Your task to perform on an android device: Clear the shopping cart on walmart.com. Search for "rayovac triple a" on walmart.com, select the first entry, add it to the cart, then select checkout. Image 0: 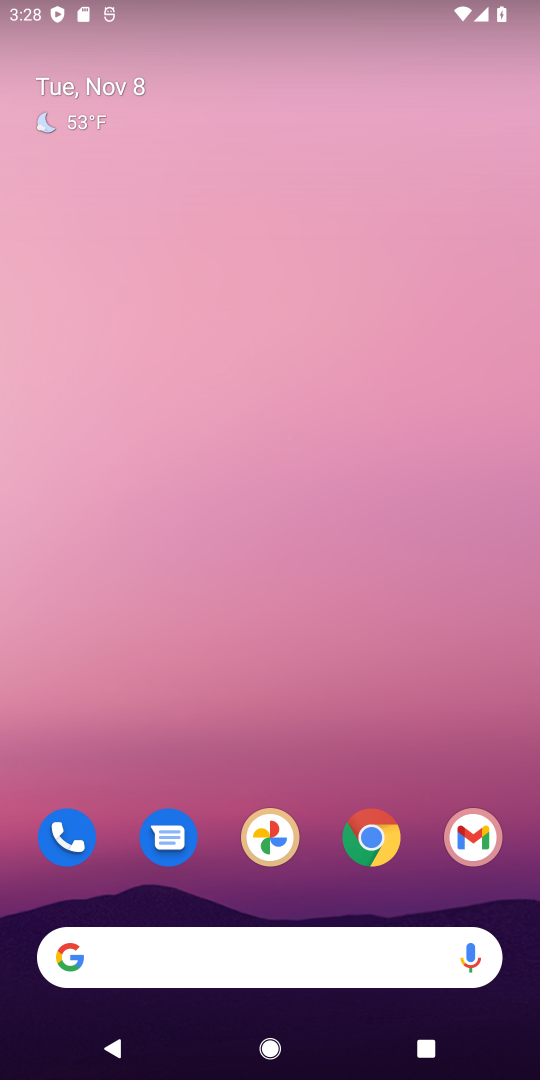
Step 0: click (387, 843)
Your task to perform on an android device: Clear the shopping cart on walmart.com. Search for "rayovac triple a" on walmart.com, select the first entry, add it to the cart, then select checkout. Image 1: 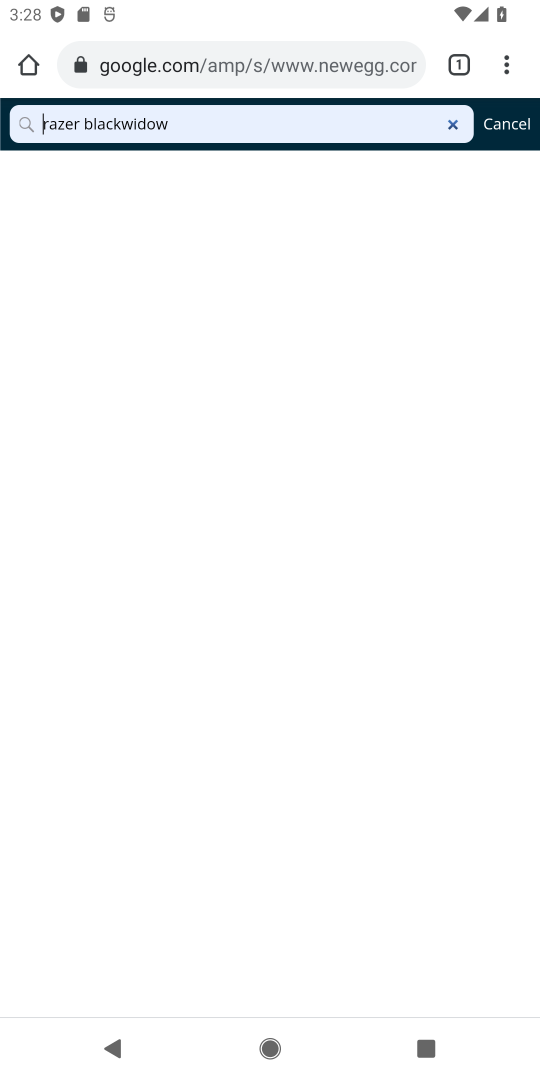
Step 1: click (194, 67)
Your task to perform on an android device: Clear the shopping cart on walmart.com. Search for "rayovac triple a" on walmart.com, select the first entry, add it to the cart, then select checkout. Image 2: 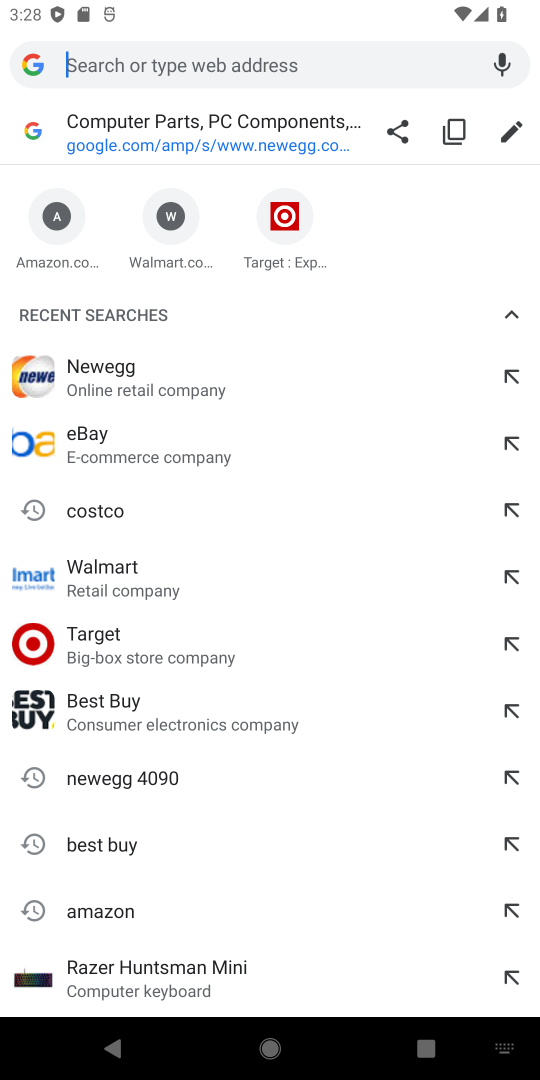
Step 2: type "walmart"
Your task to perform on an android device: Clear the shopping cart on walmart.com. Search for "rayovac triple a" on walmart.com, select the first entry, add it to the cart, then select checkout. Image 3: 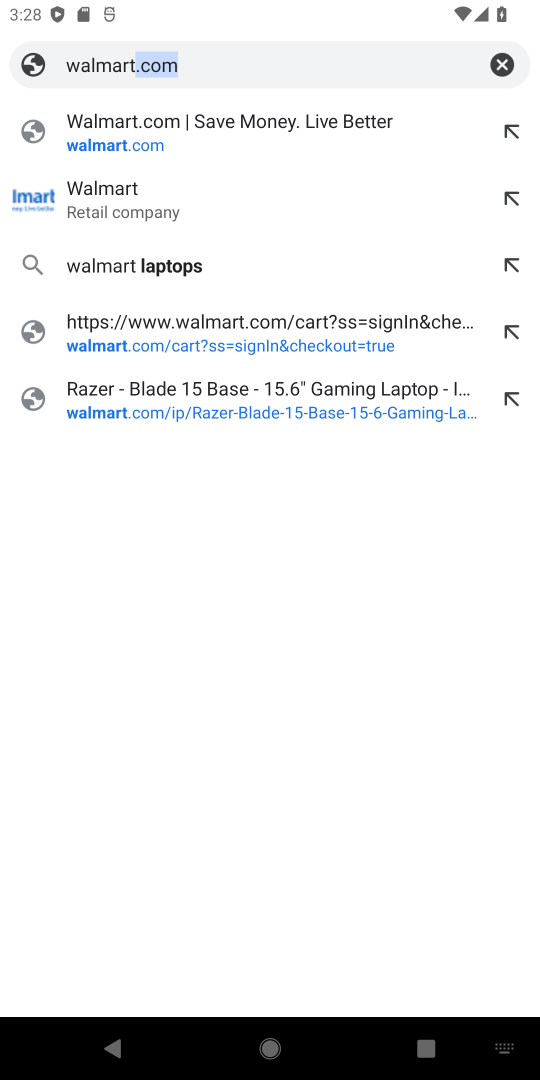
Step 3: click (85, 201)
Your task to perform on an android device: Clear the shopping cart on walmart.com. Search for "rayovac triple a" on walmart.com, select the first entry, add it to the cart, then select checkout. Image 4: 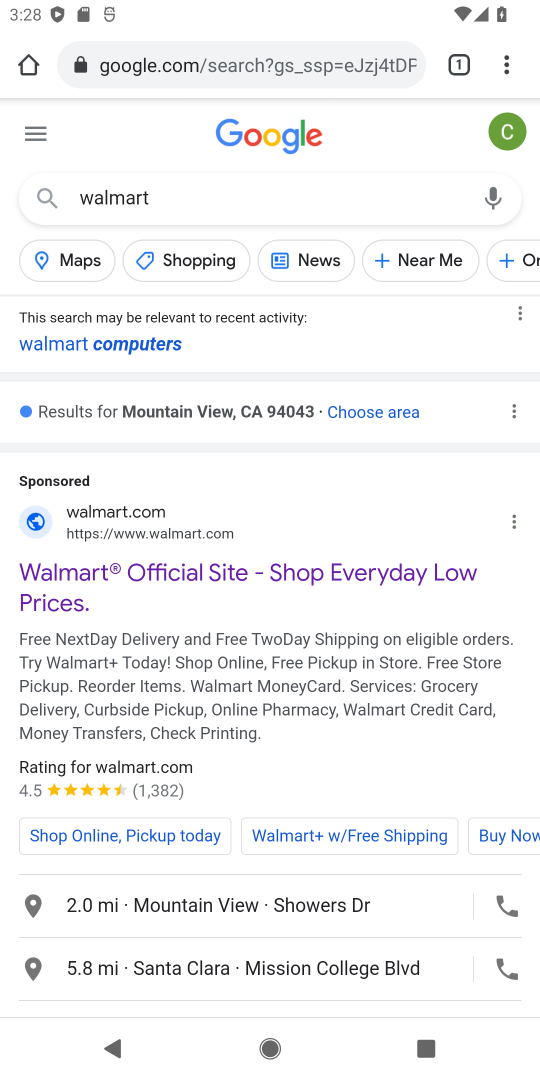
Step 4: click (195, 571)
Your task to perform on an android device: Clear the shopping cart on walmart.com. Search for "rayovac triple a" on walmart.com, select the first entry, add it to the cart, then select checkout. Image 5: 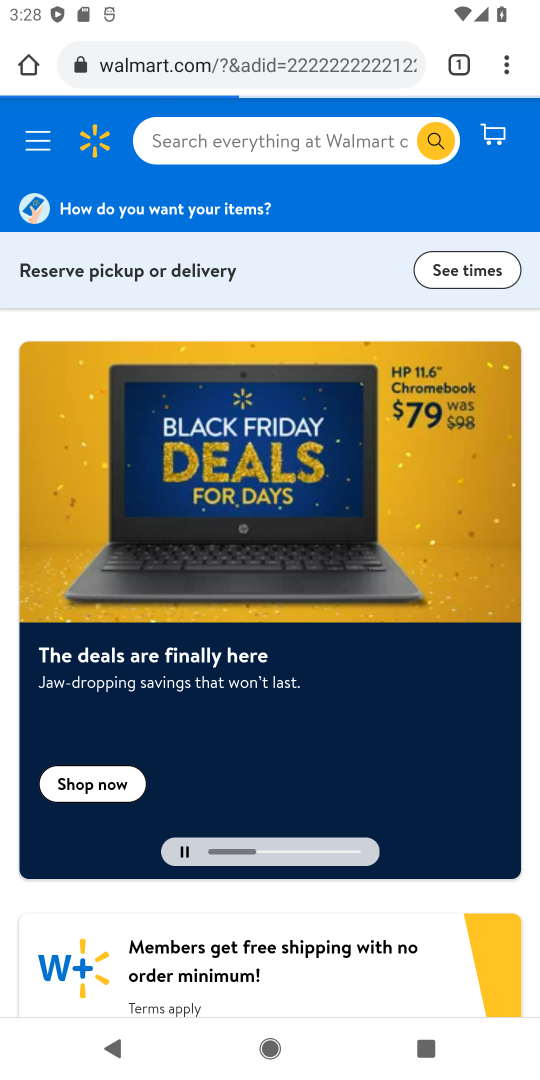
Step 5: click (233, 139)
Your task to perform on an android device: Clear the shopping cart on walmart.com. Search for "rayovac triple a" on walmart.com, select the first entry, add it to the cart, then select checkout. Image 6: 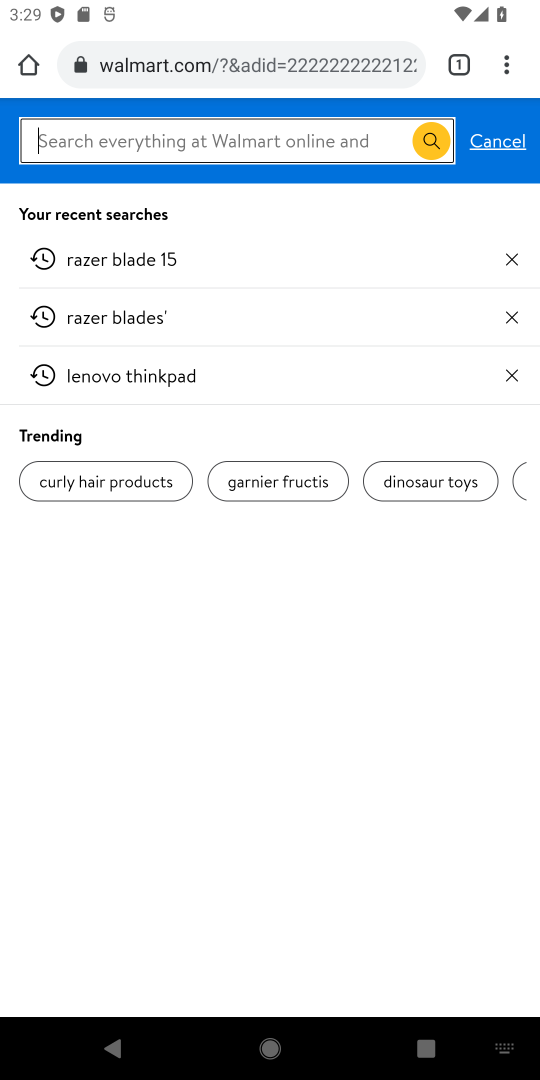
Step 6: type "rayovac triple a "
Your task to perform on an android device: Clear the shopping cart on walmart.com. Search for "rayovac triple a" on walmart.com, select the first entry, add it to the cart, then select checkout. Image 7: 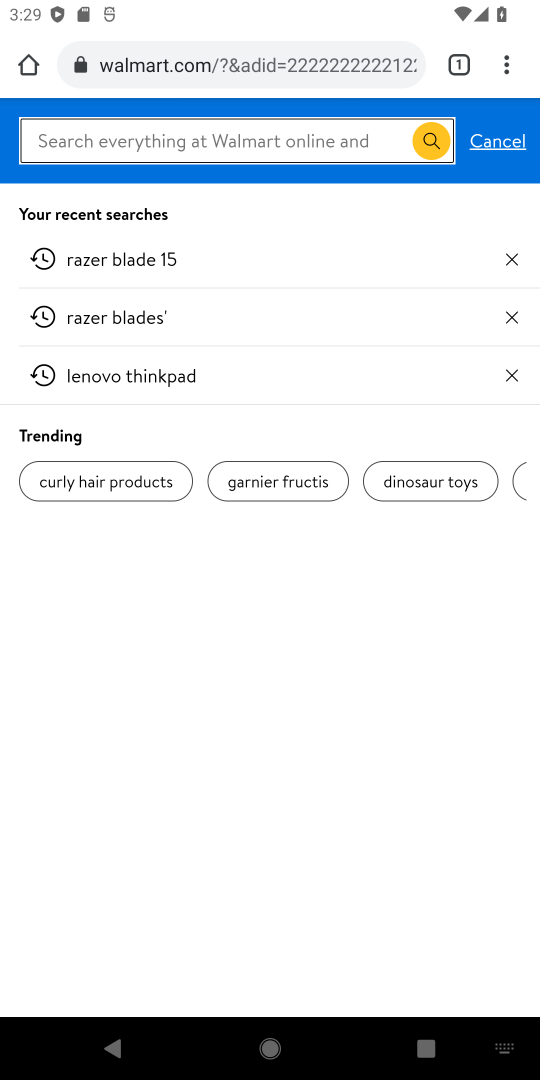
Step 7: type ""
Your task to perform on an android device: Clear the shopping cart on walmart.com. Search for "rayovac triple a" on walmart.com, select the first entry, add it to the cart, then select checkout. Image 8: 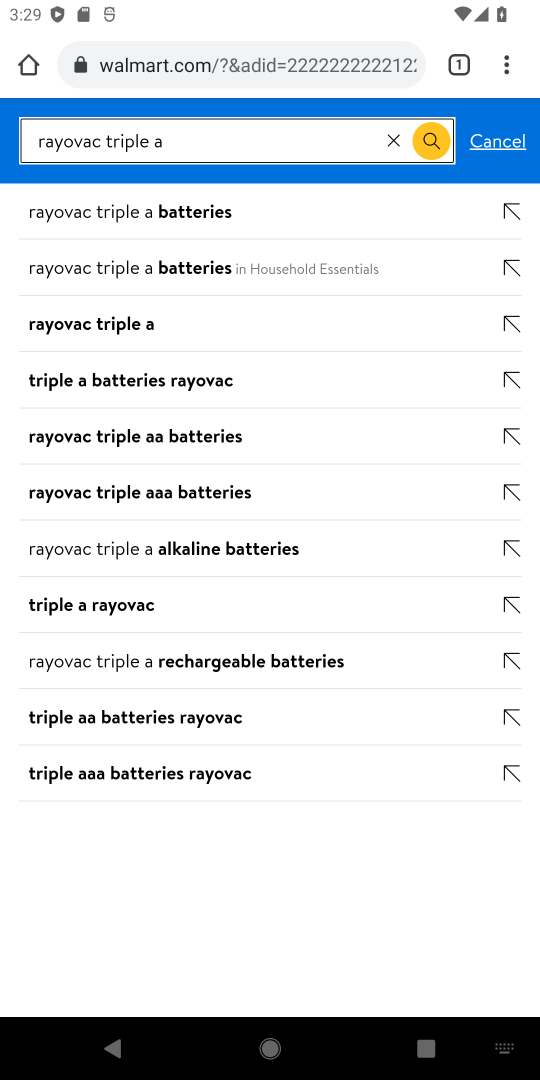
Step 8: click (74, 219)
Your task to perform on an android device: Clear the shopping cart on walmart.com. Search for "rayovac triple a" on walmart.com, select the first entry, add it to the cart, then select checkout. Image 9: 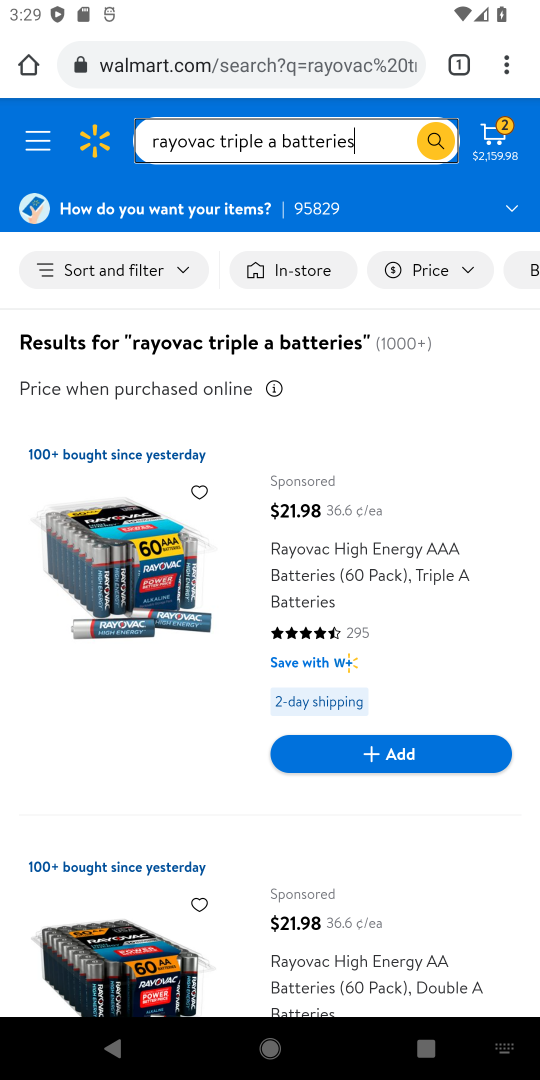
Step 9: click (154, 564)
Your task to perform on an android device: Clear the shopping cart on walmart.com. Search for "rayovac triple a" on walmart.com, select the first entry, add it to the cart, then select checkout. Image 10: 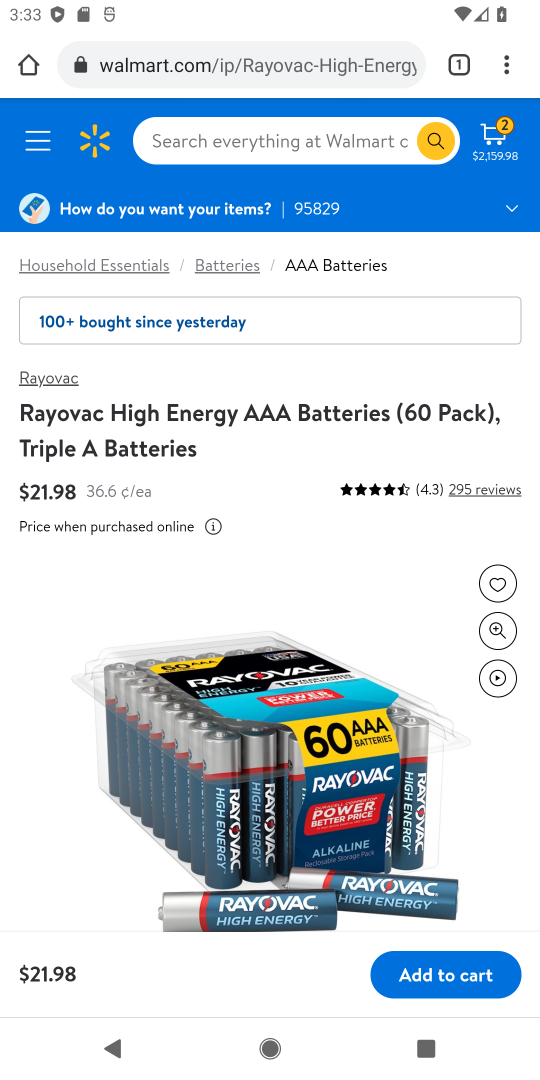
Step 10: click (426, 975)
Your task to perform on an android device: Clear the shopping cart on walmart.com. Search for "rayovac triple a" on walmart.com, select the first entry, add it to the cart, then select checkout. Image 11: 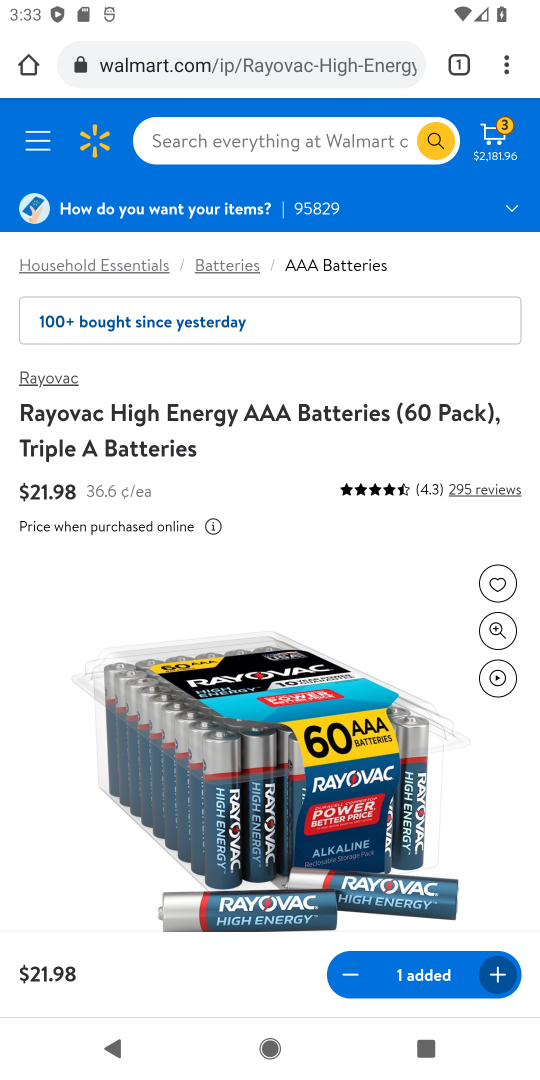
Step 11: click (497, 155)
Your task to perform on an android device: Clear the shopping cart on walmart.com. Search for "rayovac triple a" on walmart.com, select the first entry, add it to the cart, then select checkout. Image 12: 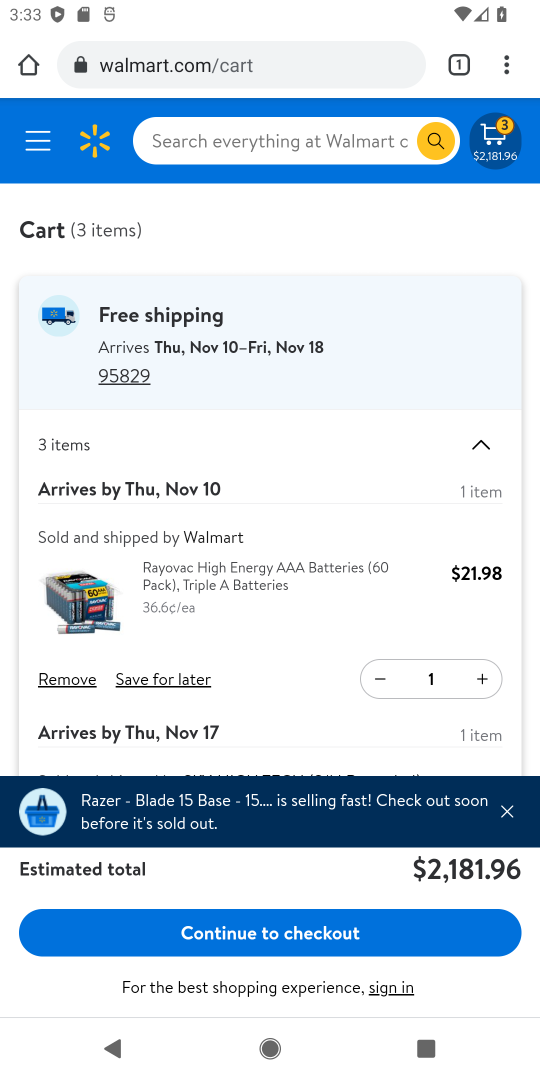
Step 12: click (328, 951)
Your task to perform on an android device: Clear the shopping cart on walmart.com. Search for "rayovac triple a" on walmart.com, select the first entry, add it to the cart, then select checkout. Image 13: 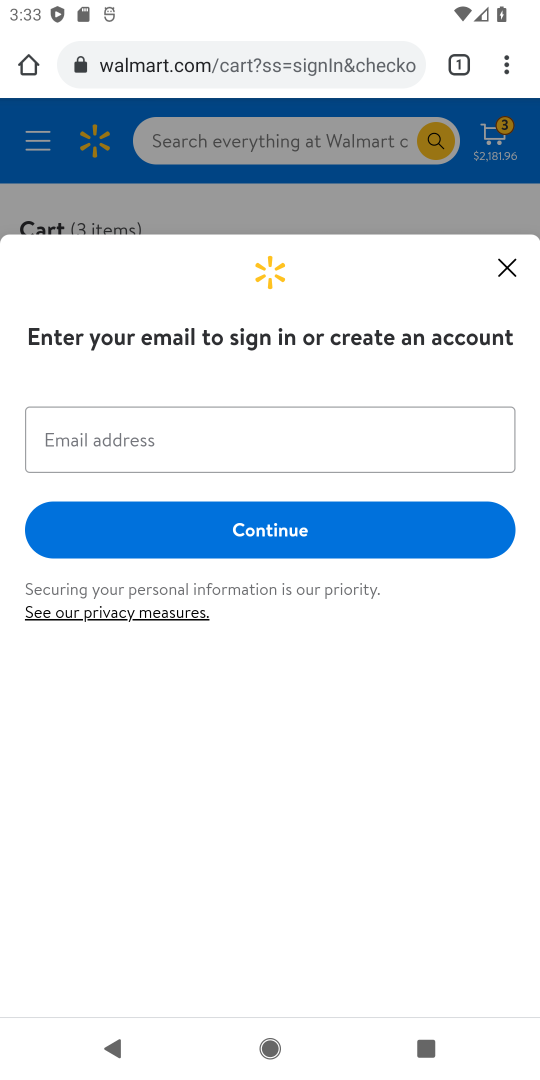
Step 13: click (510, 273)
Your task to perform on an android device: Clear the shopping cart on walmart.com. Search for "rayovac triple a" on walmart.com, select the first entry, add it to the cart, then select checkout. Image 14: 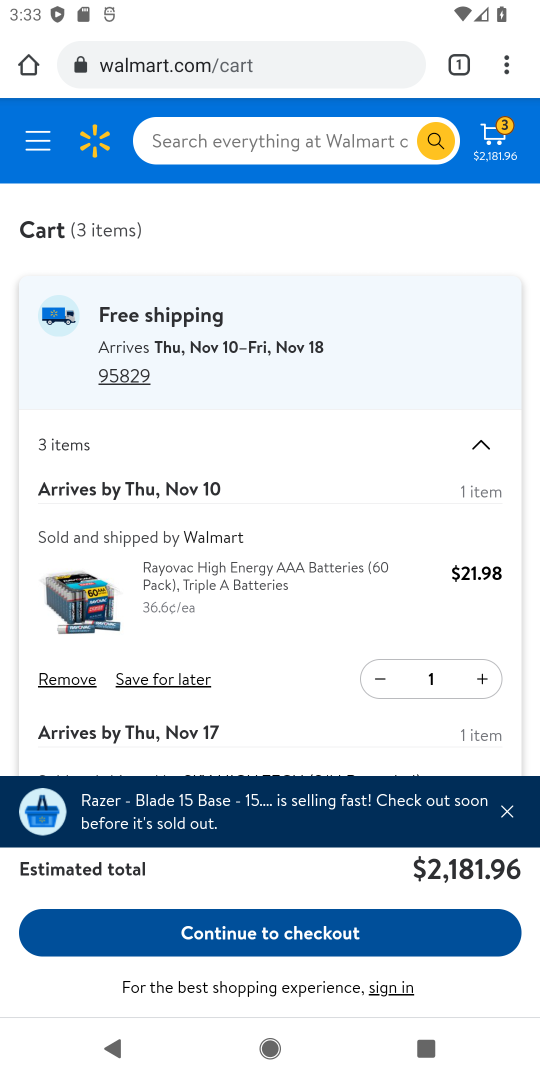
Step 14: task complete